Your task to perform on an android device: Do I have any events this weekend? Image 0: 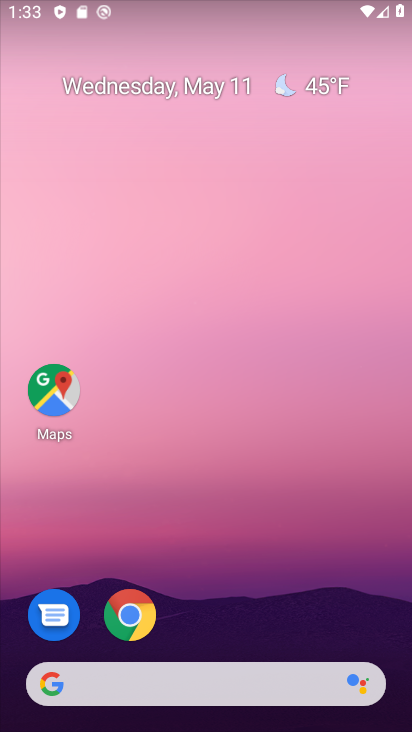
Step 0: drag from (305, 603) to (301, 213)
Your task to perform on an android device: Do I have any events this weekend? Image 1: 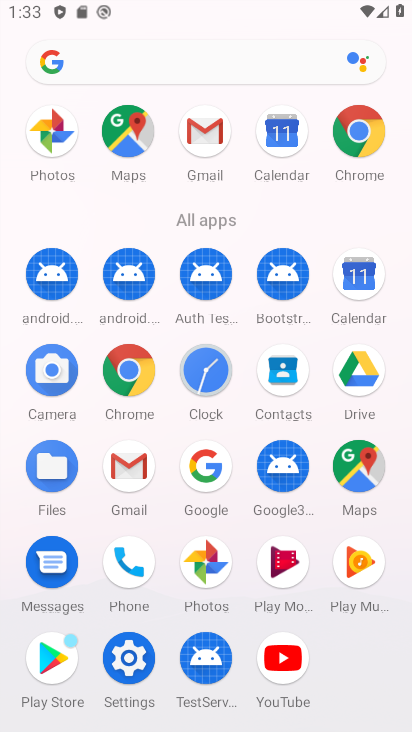
Step 1: click (353, 287)
Your task to perform on an android device: Do I have any events this weekend? Image 2: 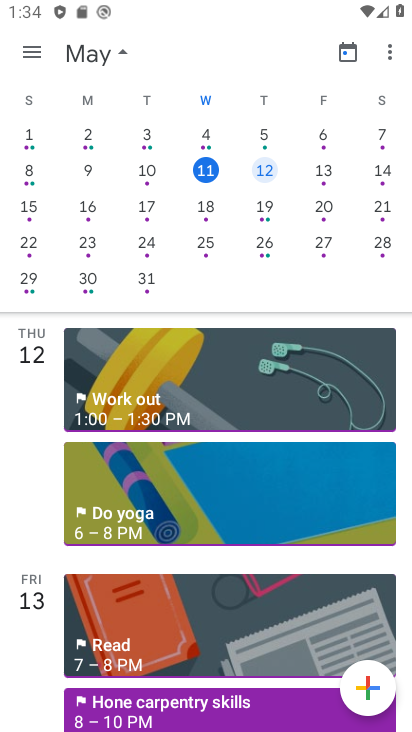
Step 2: task complete